Your task to perform on an android device: open chrome privacy settings Image 0: 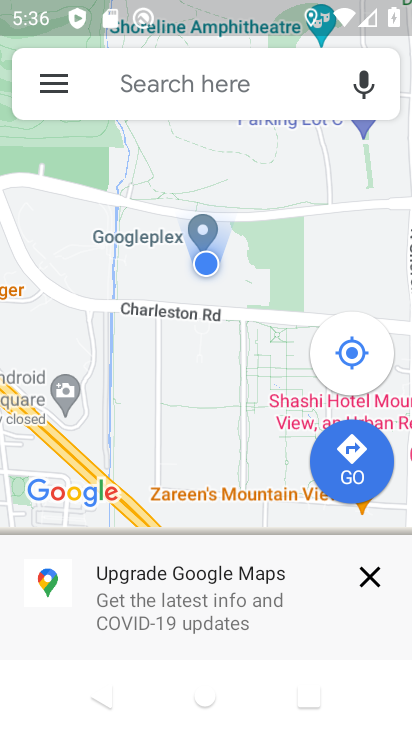
Step 0: drag from (342, 548) to (289, 296)
Your task to perform on an android device: open chrome privacy settings Image 1: 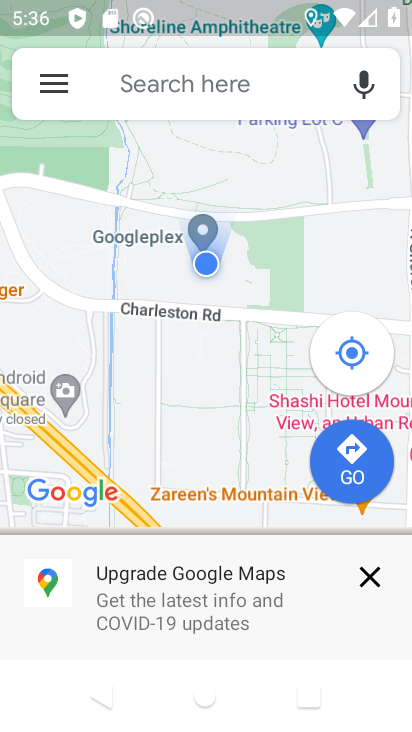
Step 1: press home button
Your task to perform on an android device: open chrome privacy settings Image 2: 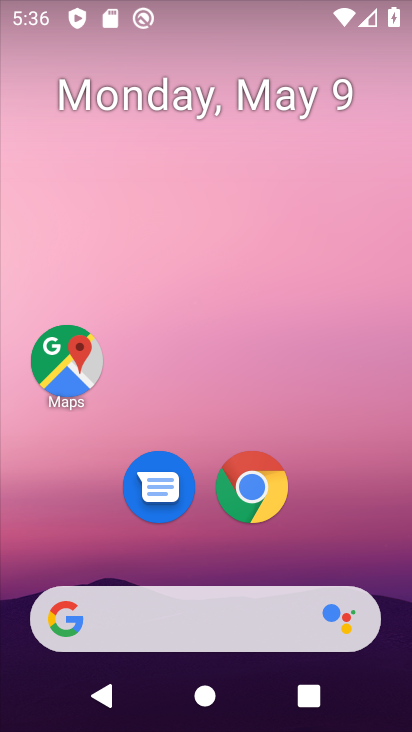
Step 2: drag from (318, 519) to (296, 59)
Your task to perform on an android device: open chrome privacy settings Image 3: 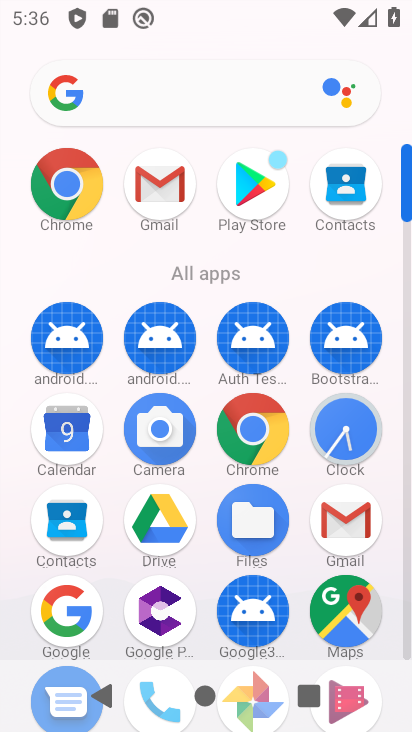
Step 3: click (79, 228)
Your task to perform on an android device: open chrome privacy settings Image 4: 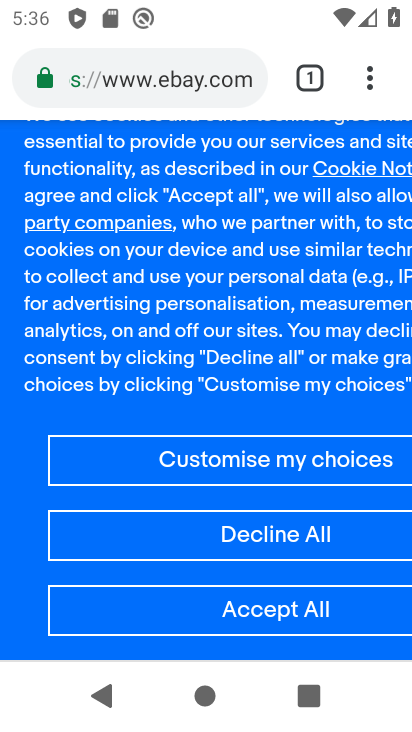
Step 4: click (373, 83)
Your task to perform on an android device: open chrome privacy settings Image 5: 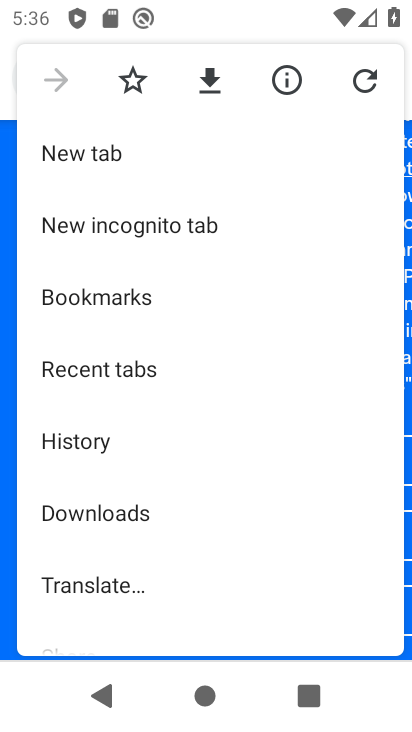
Step 5: drag from (148, 527) to (149, 189)
Your task to perform on an android device: open chrome privacy settings Image 6: 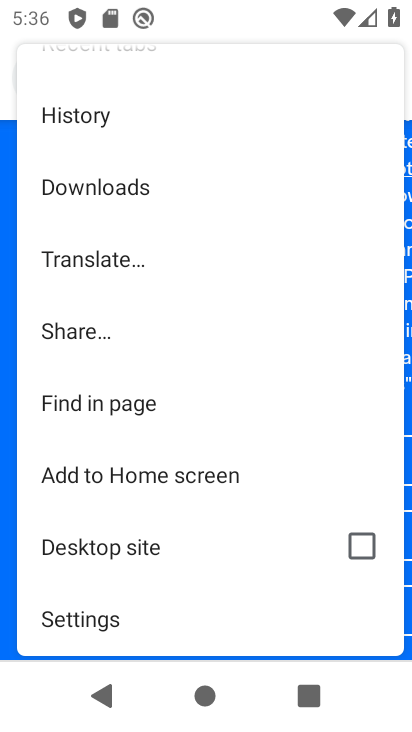
Step 6: click (116, 616)
Your task to perform on an android device: open chrome privacy settings Image 7: 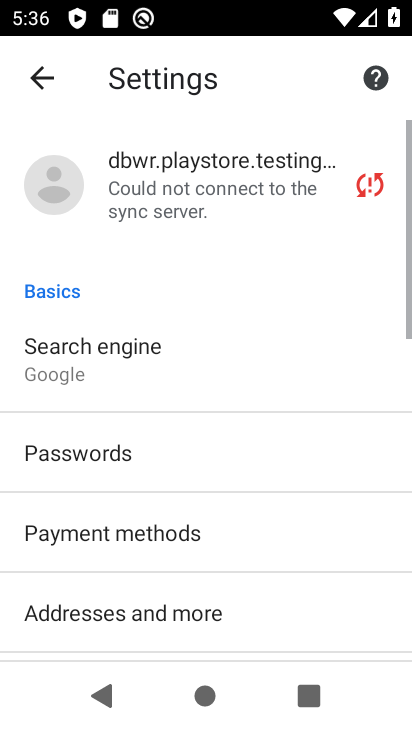
Step 7: drag from (118, 606) to (174, 197)
Your task to perform on an android device: open chrome privacy settings Image 8: 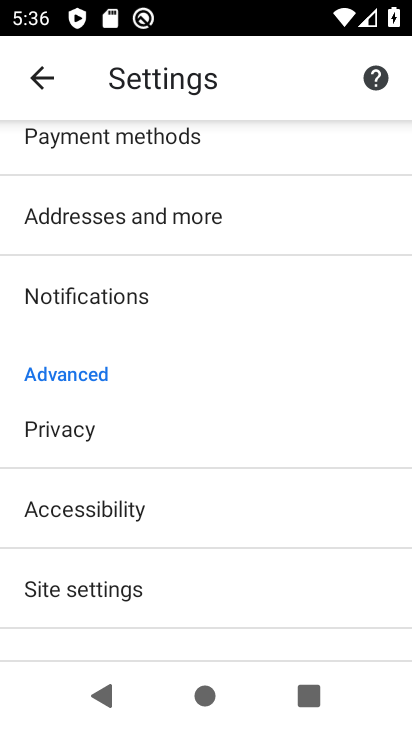
Step 8: click (58, 420)
Your task to perform on an android device: open chrome privacy settings Image 9: 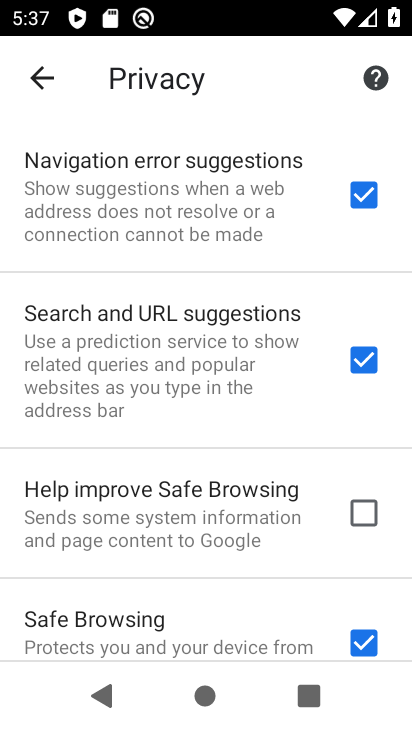
Step 9: task complete